Your task to perform on an android device: turn on bluetooth scan Image 0: 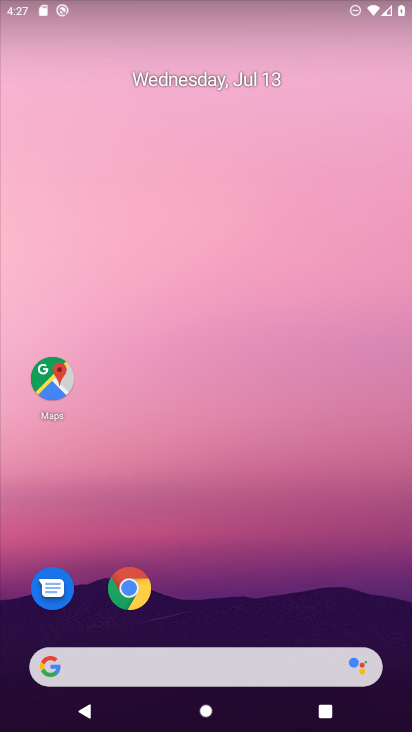
Step 0: drag from (256, 702) to (103, 137)
Your task to perform on an android device: turn on bluetooth scan Image 1: 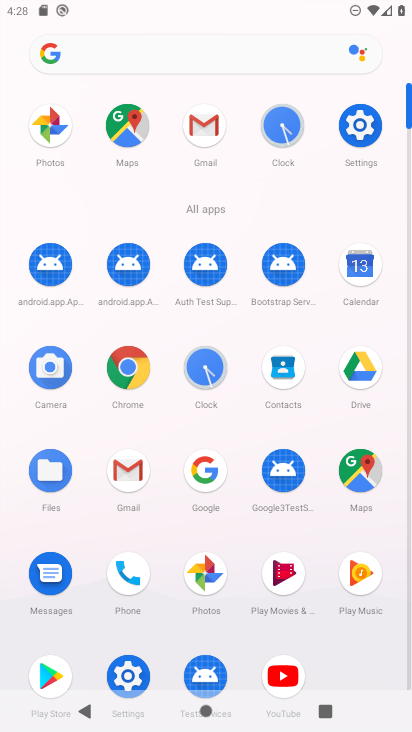
Step 1: click (362, 118)
Your task to perform on an android device: turn on bluetooth scan Image 2: 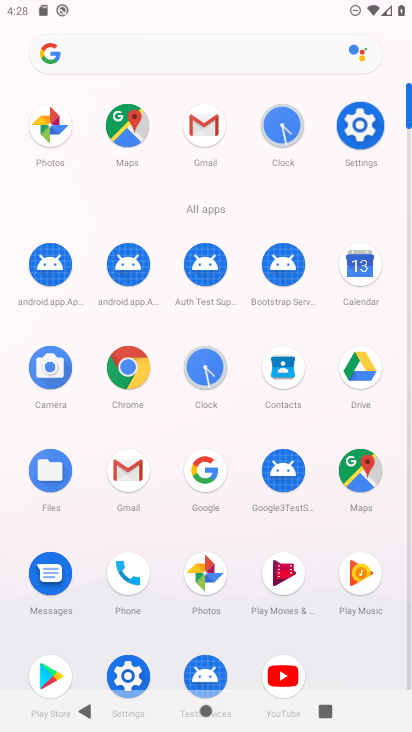
Step 2: click (363, 118)
Your task to perform on an android device: turn on bluetooth scan Image 3: 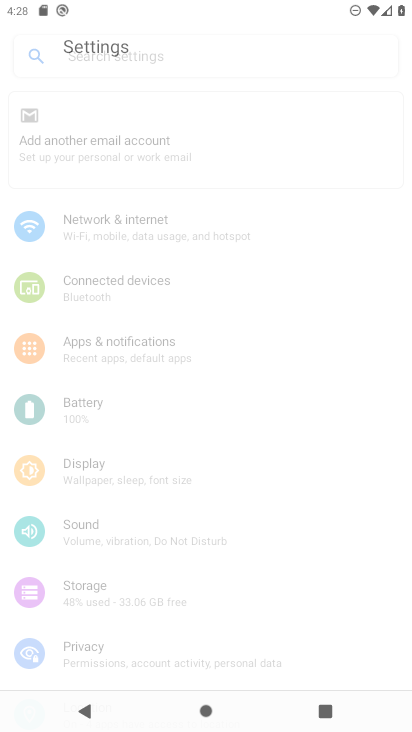
Step 3: click (363, 118)
Your task to perform on an android device: turn on bluetooth scan Image 4: 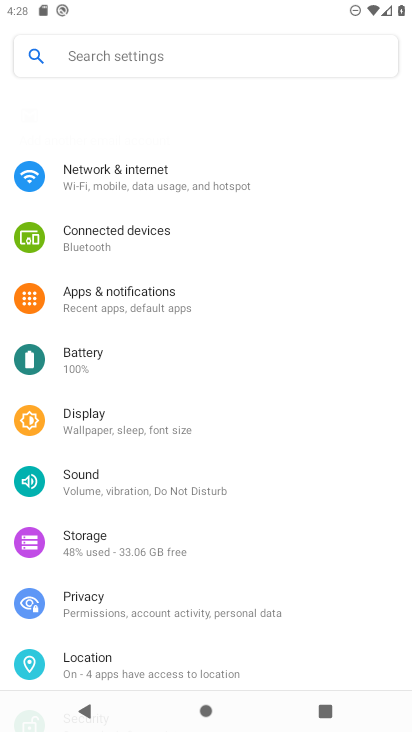
Step 4: click (364, 119)
Your task to perform on an android device: turn on bluetooth scan Image 5: 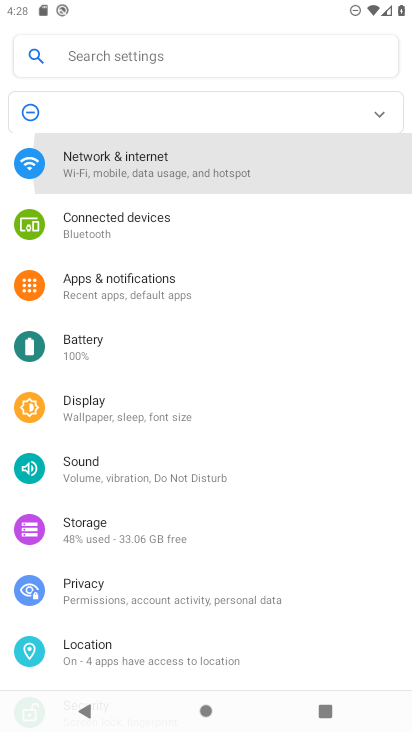
Step 5: click (364, 119)
Your task to perform on an android device: turn on bluetooth scan Image 6: 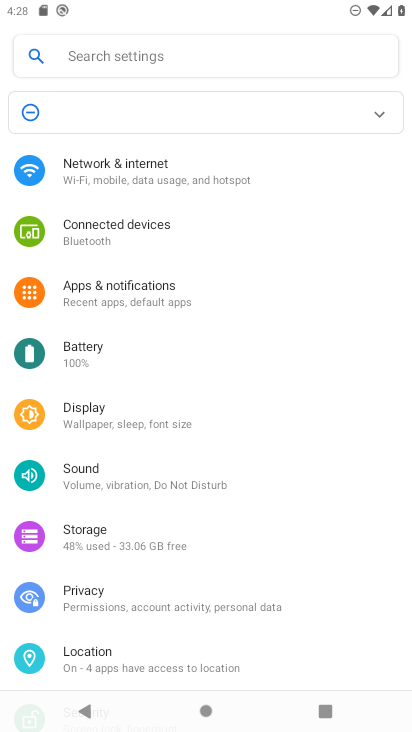
Step 6: click (364, 119)
Your task to perform on an android device: turn on bluetooth scan Image 7: 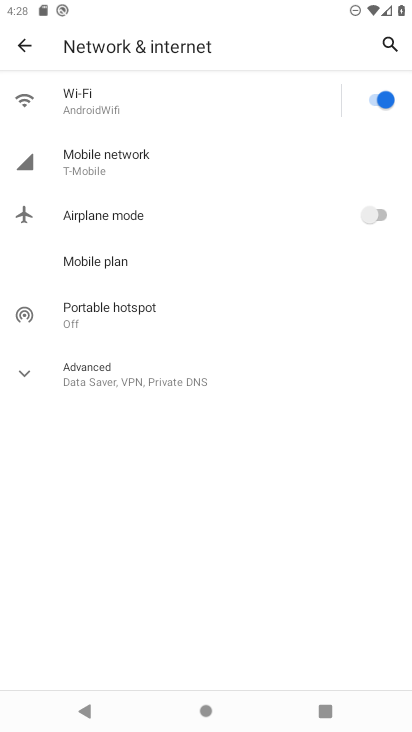
Step 7: click (22, 44)
Your task to perform on an android device: turn on bluetooth scan Image 8: 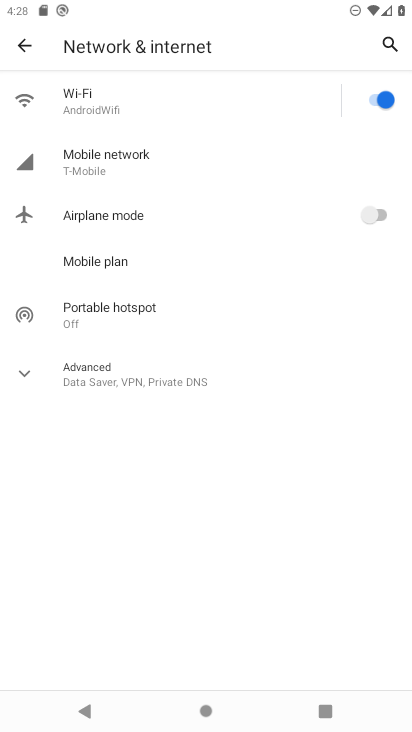
Step 8: click (17, 54)
Your task to perform on an android device: turn on bluetooth scan Image 9: 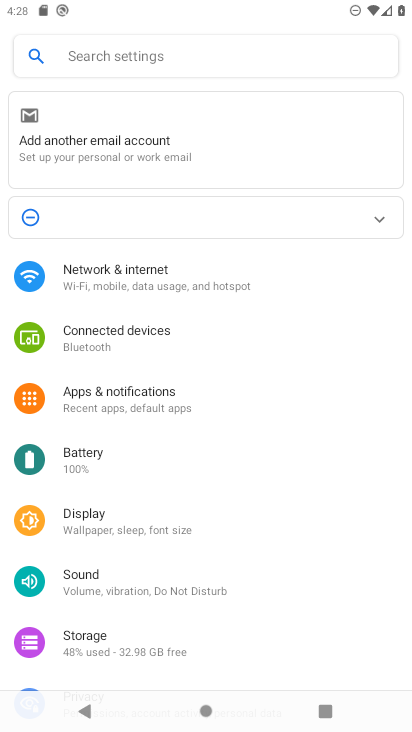
Step 9: drag from (132, 468) to (162, 226)
Your task to perform on an android device: turn on bluetooth scan Image 10: 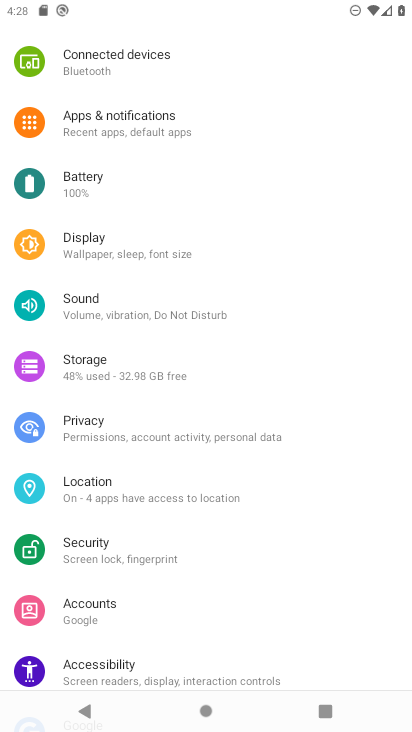
Step 10: click (92, 487)
Your task to perform on an android device: turn on bluetooth scan Image 11: 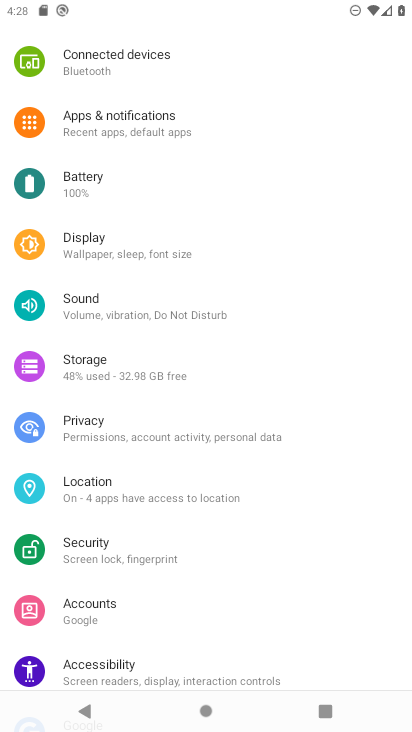
Step 11: click (90, 489)
Your task to perform on an android device: turn on bluetooth scan Image 12: 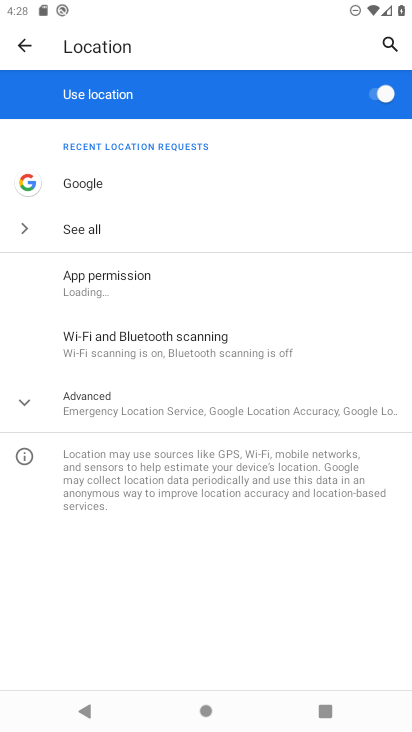
Step 12: click (141, 351)
Your task to perform on an android device: turn on bluetooth scan Image 13: 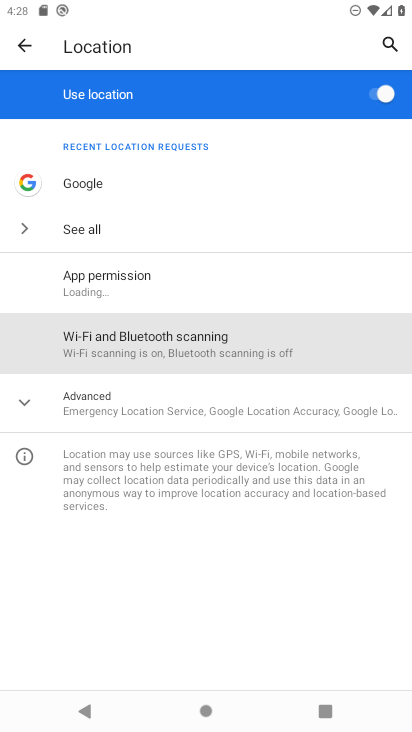
Step 13: click (147, 345)
Your task to perform on an android device: turn on bluetooth scan Image 14: 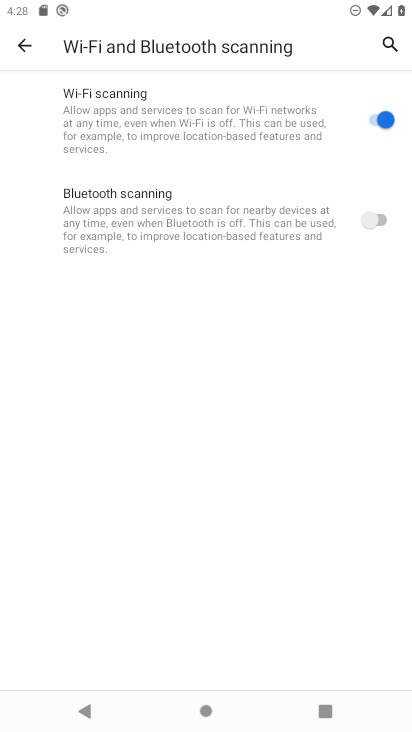
Step 14: click (371, 211)
Your task to perform on an android device: turn on bluetooth scan Image 15: 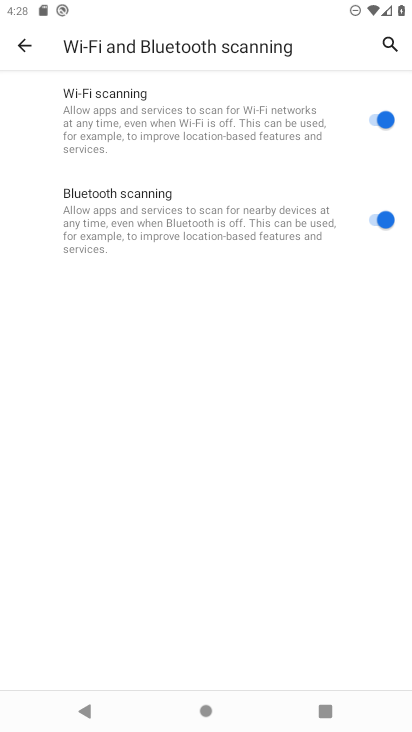
Step 15: task complete